Your task to perform on an android device: toggle location history Image 0: 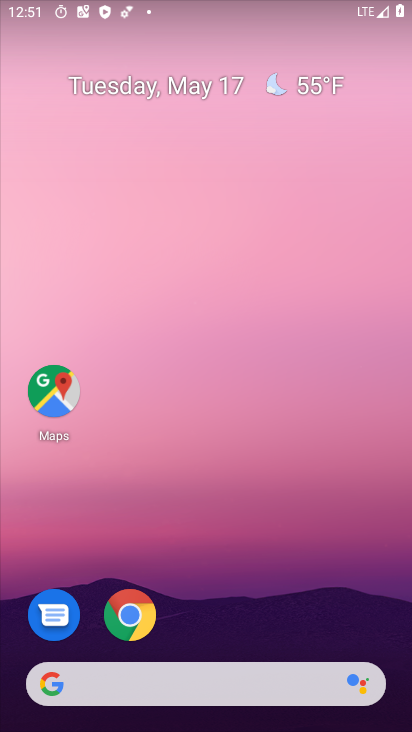
Step 0: press home button
Your task to perform on an android device: toggle location history Image 1: 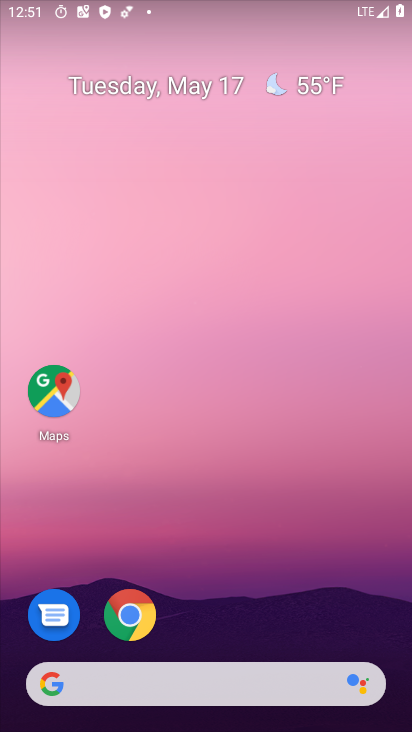
Step 1: click (55, 377)
Your task to perform on an android device: toggle location history Image 2: 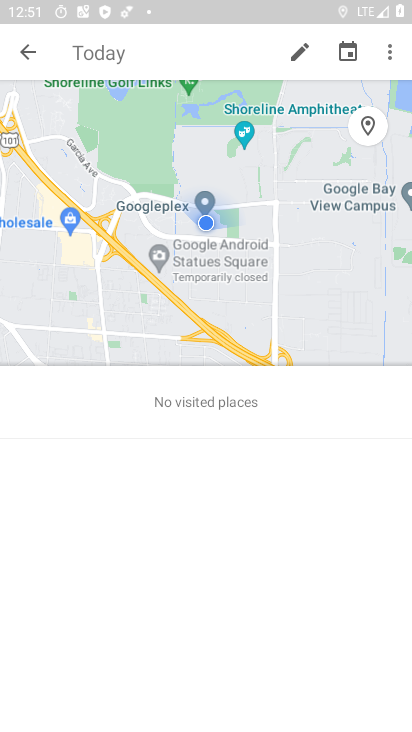
Step 2: click (32, 57)
Your task to perform on an android device: toggle location history Image 3: 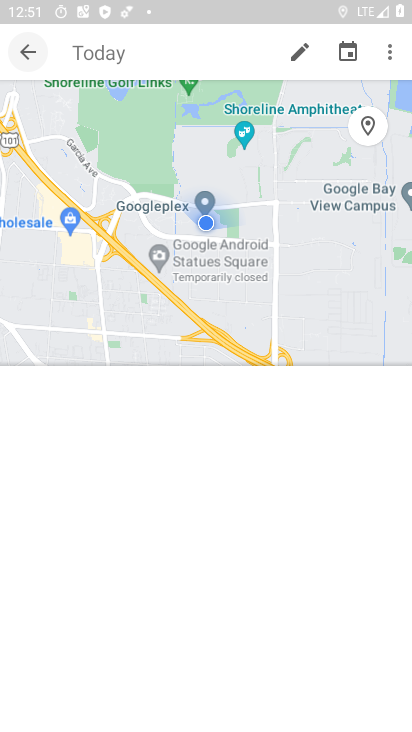
Step 3: click (32, 57)
Your task to perform on an android device: toggle location history Image 4: 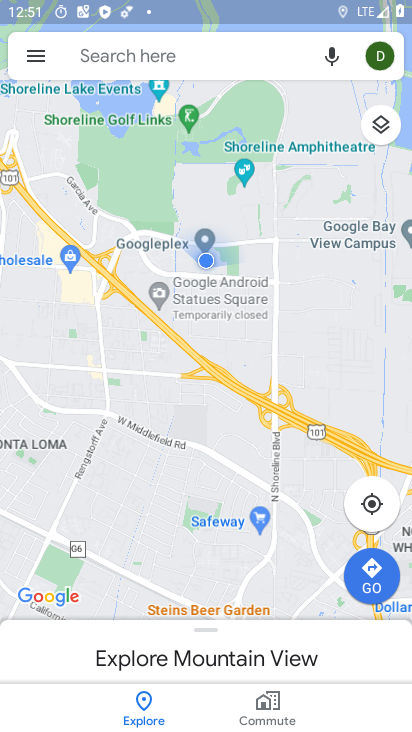
Step 4: click (32, 57)
Your task to perform on an android device: toggle location history Image 5: 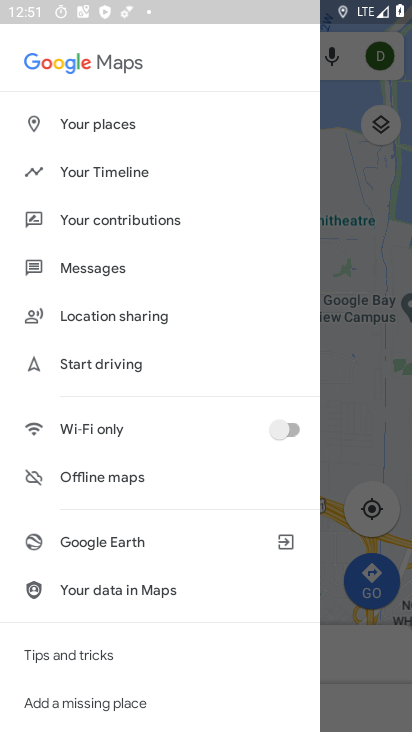
Step 5: drag from (173, 588) to (136, 339)
Your task to perform on an android device: toggle location history Image 6: 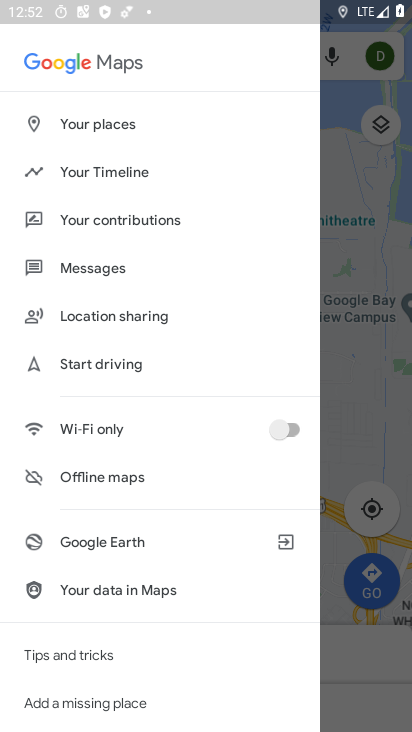
Step 6: click (144, 174)
Your task to perform on an android device: toggle location history Image 7: 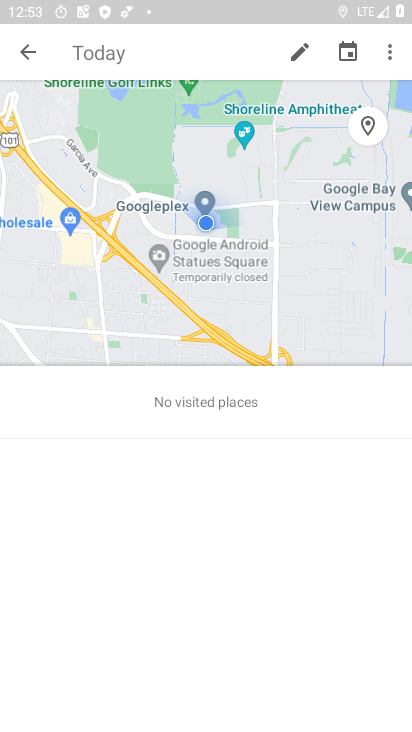
Step 7: click (387, 57)
Your task to perform on an android device: toggle location history Image 8: 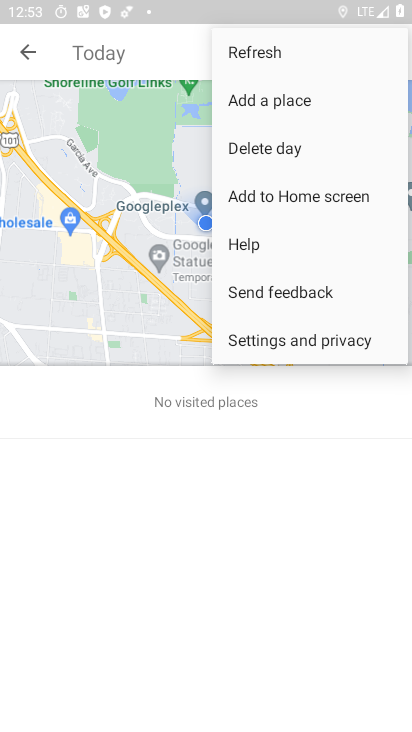
Step 8: click (278, 349)
Your task to perform on an android device: toggle location history Image 9: 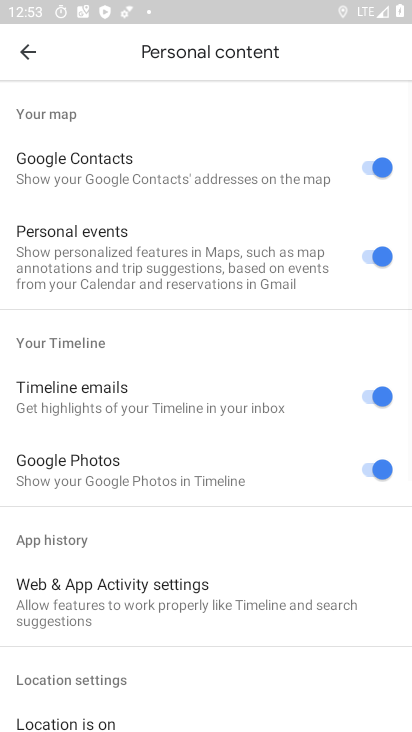
Step 9: drag from (243, 644) to (232, 134)
Your task to perform on an android device: toggle location history Image 10: 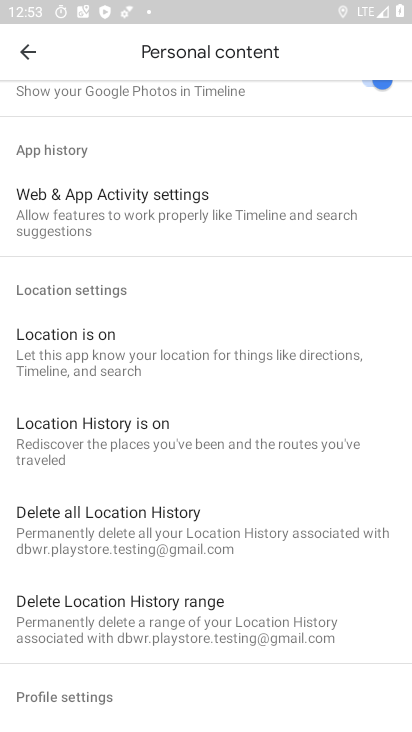
Step 10: click (98, 429)
Your task to perform on an android device: toggle location history Image 11: 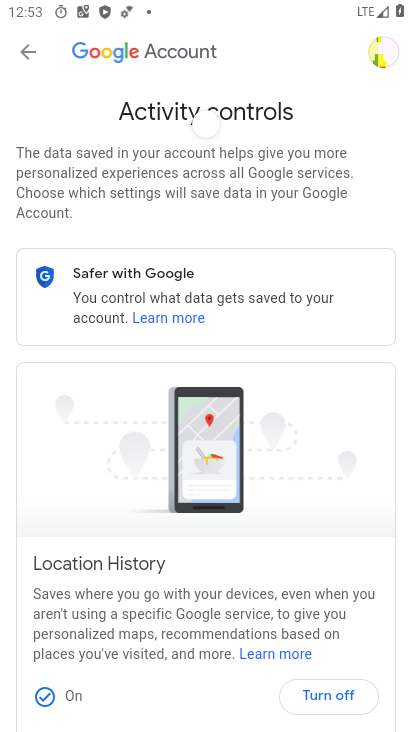
Step 11: drag from (231, 462) to (145, 132)
Your task to perform on an android device: toggle location history Image 12: 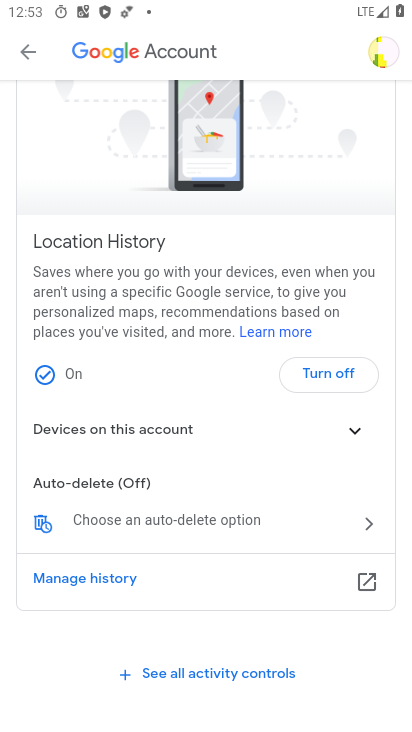
Step 12: click (356, 377)
Your task to perform on an android device: toggle location history Image 13: 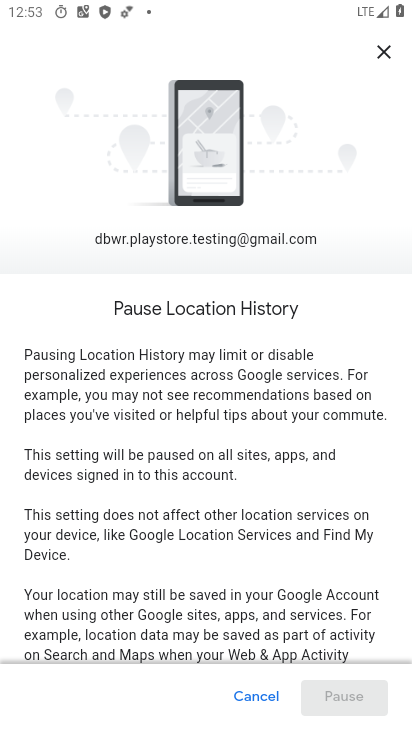
Step 13: drag from (343, 620) to (295, 6)
Your task to perform on an android device: toggle location history Image 14: 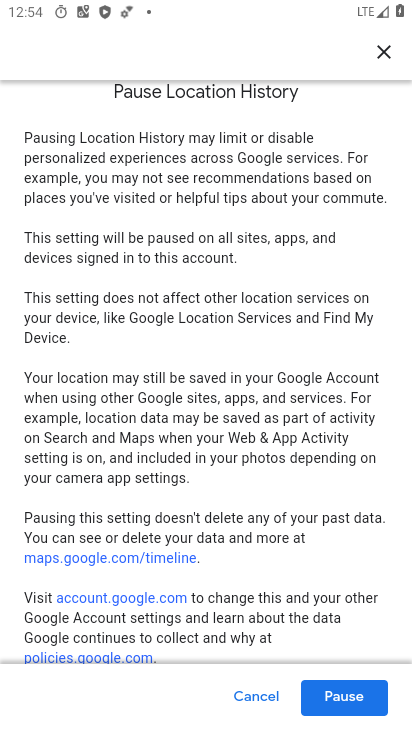
Step 14: click (325, 695)
Your task to perform on an android device: toggle location history Image 15: 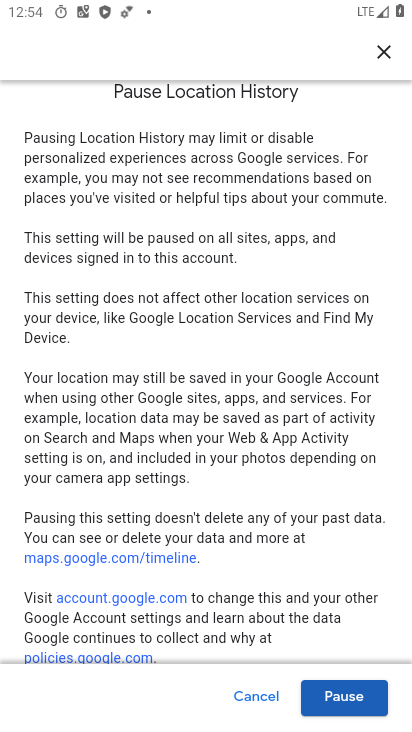
Step 15: click (350, 686)
Your task to perform on an android device: toggle location history Image 16: 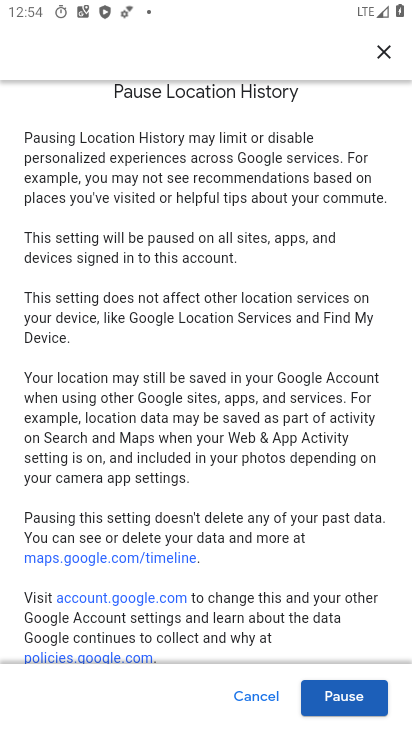
Step 16: click (350, 686)
Your task to perform on an android device: toggle location history Image 17: 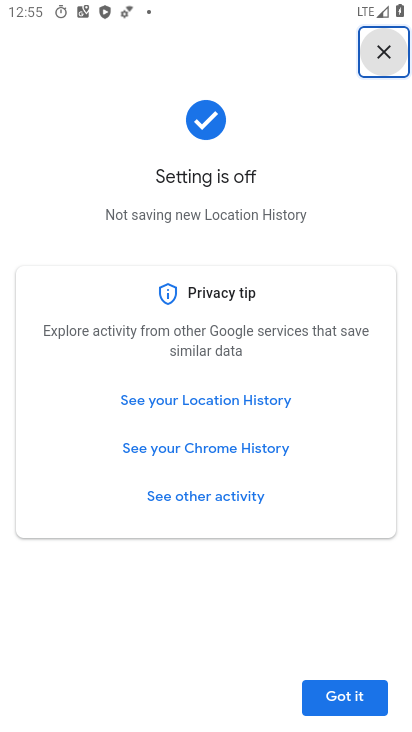
Step 17: click (348, 699)
Your task to perform on an android device: toggle location history Image 18: 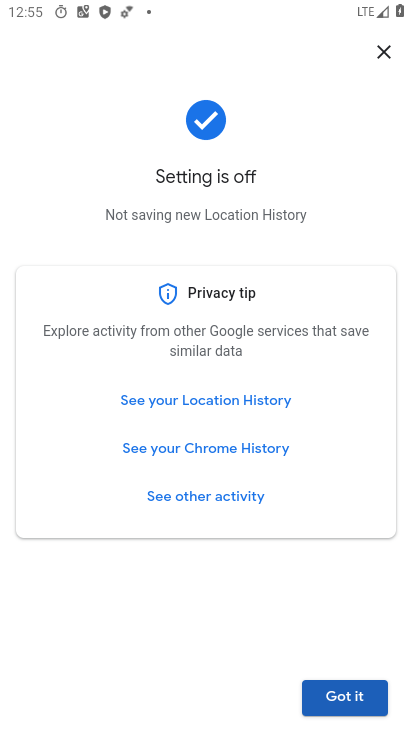
Step 18: click (331, 708)
Your task to perform on an android device: toggle location history Image 19: 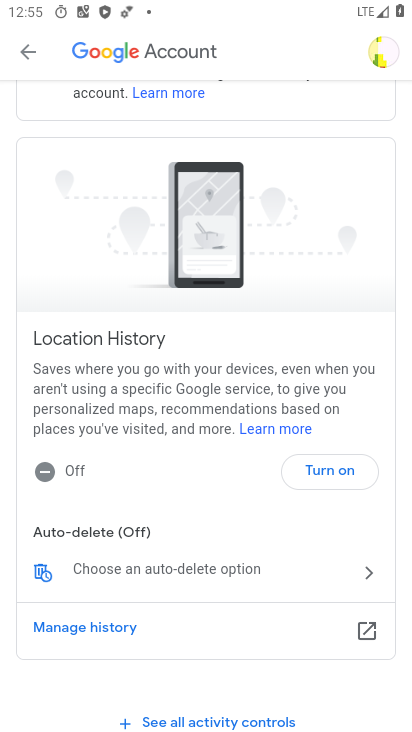
Step 19: task complete